Your task to perform on an android device: Go to CNN.com Image 0: 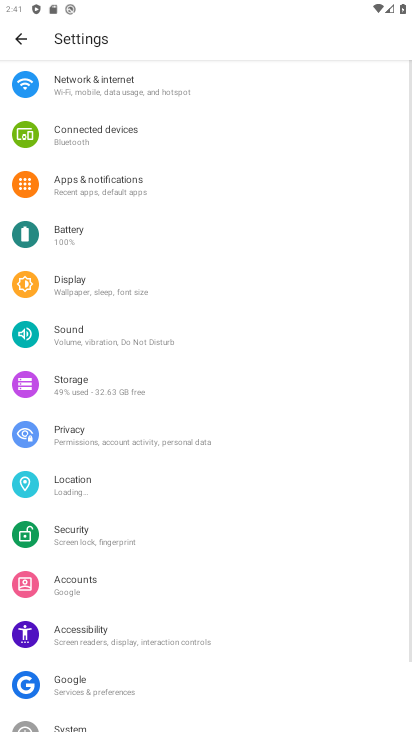
Step 0: press home button
Your task to perform on an android device: Go to CNN.com Image 1: 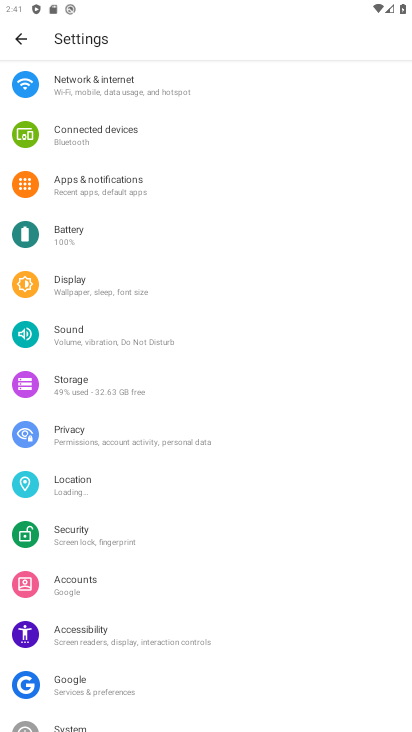
Step 1: press home button
Your task to perform on an android device: Go to CNN.com Image 2: 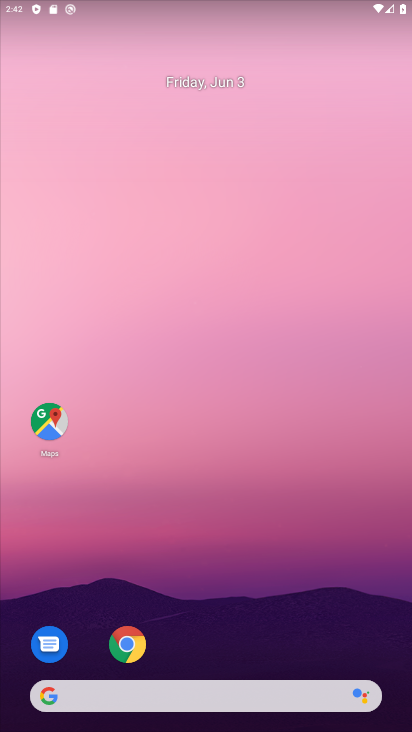
Step 2: click (142, 643)
Your task to perform on an android device: Go to CNN.com Image 3: 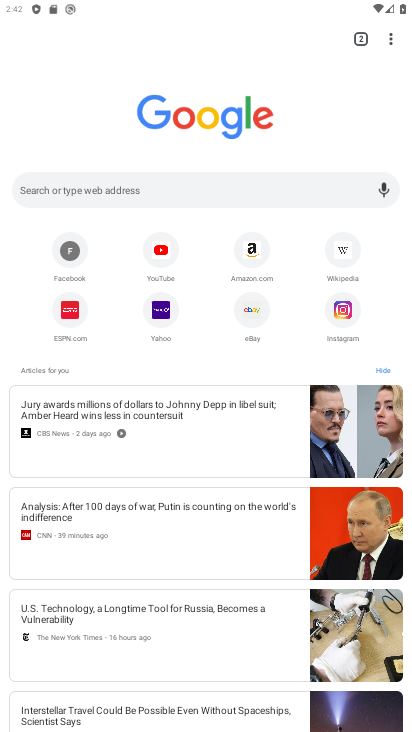
Step 3: click (262, 184)
Your task to perform on an android device: Go to CNN.com Image 4: 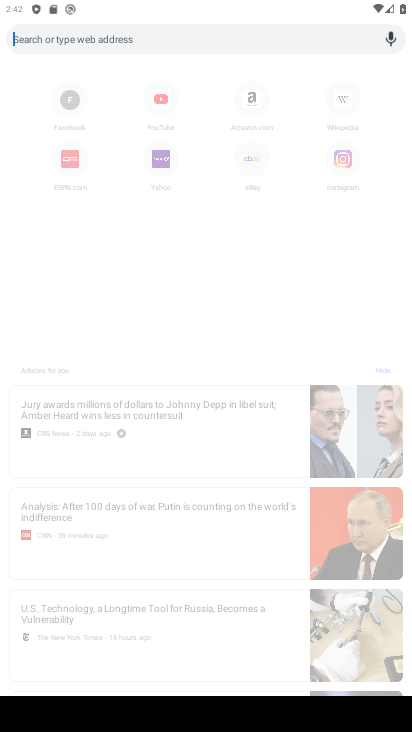
Step 4: type " CNN.com"
Your task to perform on an android device: Go to CNN.com Image 5: 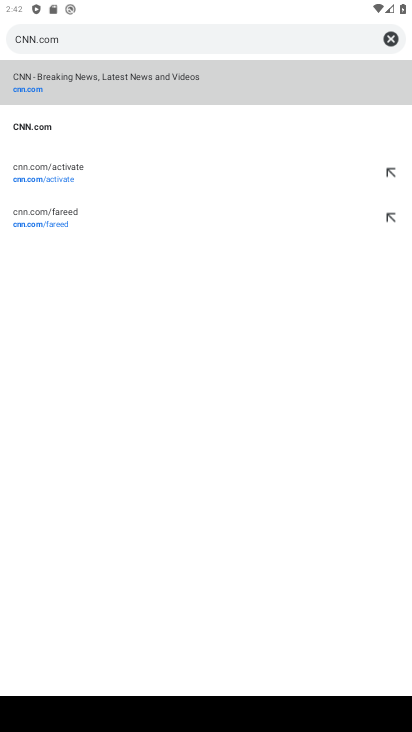
Step 5: click (190, 74)
Your task to perform on an android device: Go to CNN.com Image 6: 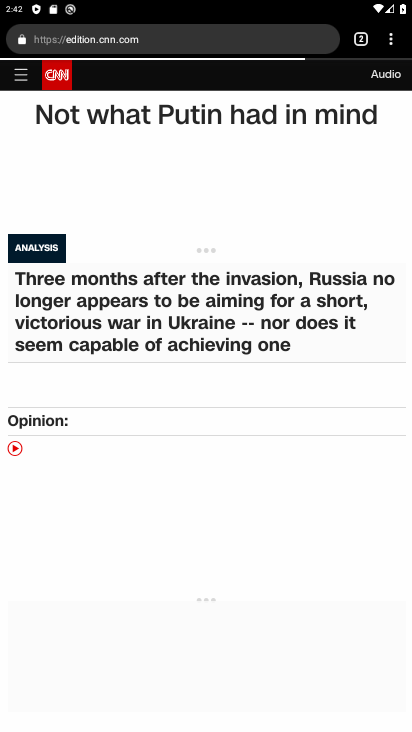
Step 6: task complete